Your task to perform on an android device: Go to Google Image 0: 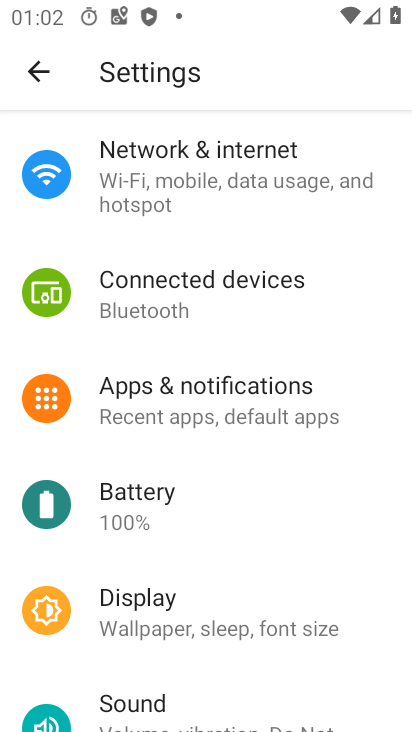
Step 0: press home button
Your task to perform on an android device: Go to Google Image 1: 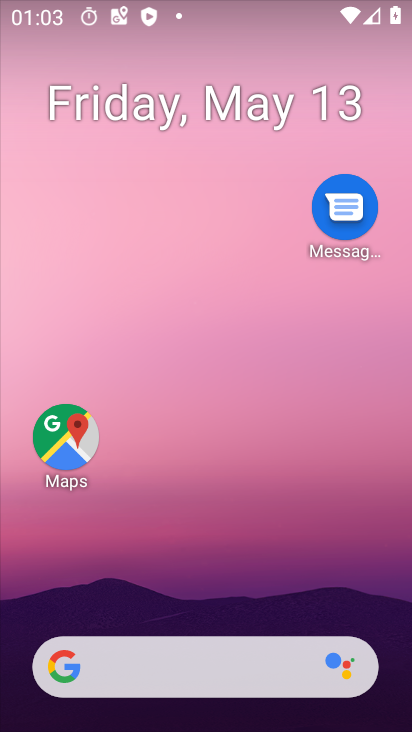
Step 1: drag from (278, 318) to (270, 52)
Your task to perform on an android device: Go to Google Image 2: 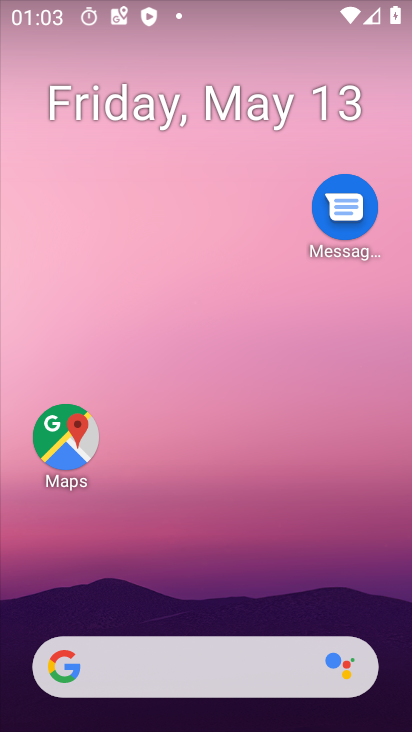
Step 2: drag from (268, 575) to (282, 99)
Your task to perform on an android device: Go to Google Image 3: 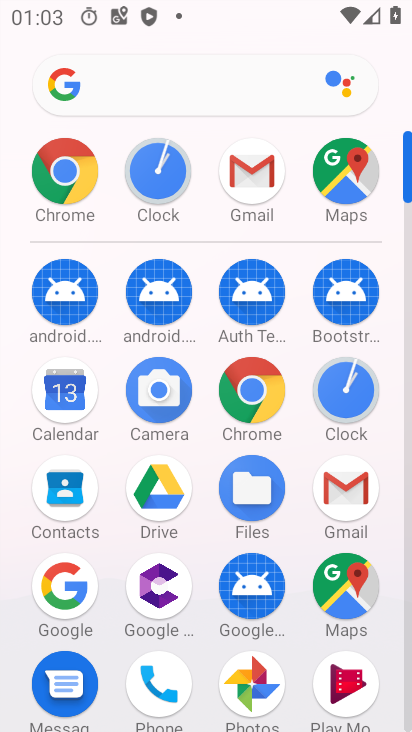
Step 3: click (68, 579)
Your task to perform on an android device: Go to Google Image 4: 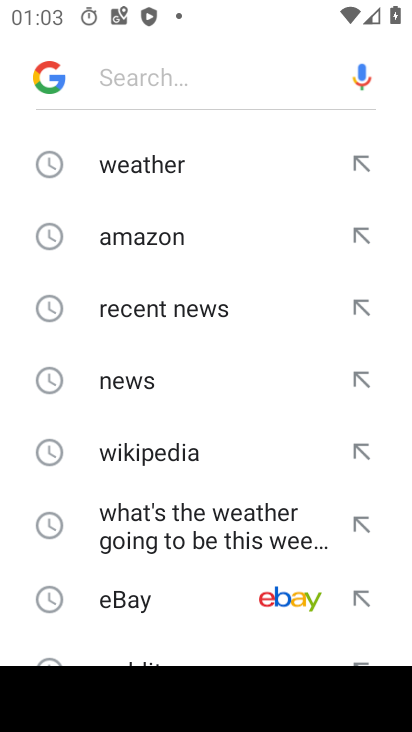
Step 4: press home button
Your task to perform on an android device: Go to Google Image 5: 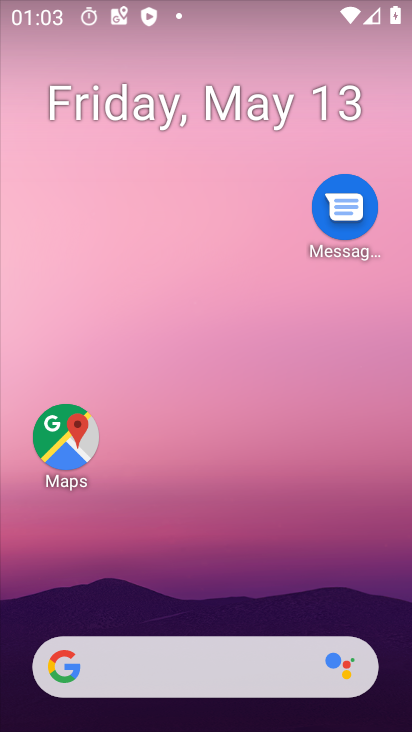
Step 5: drag from (185, 581) to (210, 0)
Your task to perform on an android device: Go to Google Image 6: 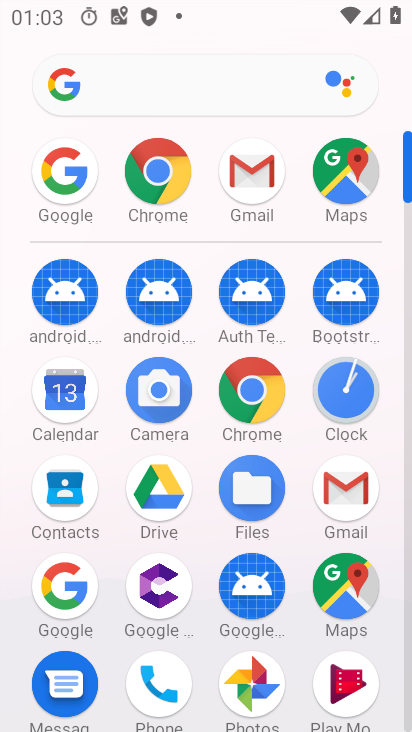
Step 6: click (67, 581)
Your task to perform on an android device: Go to Google Image 7: 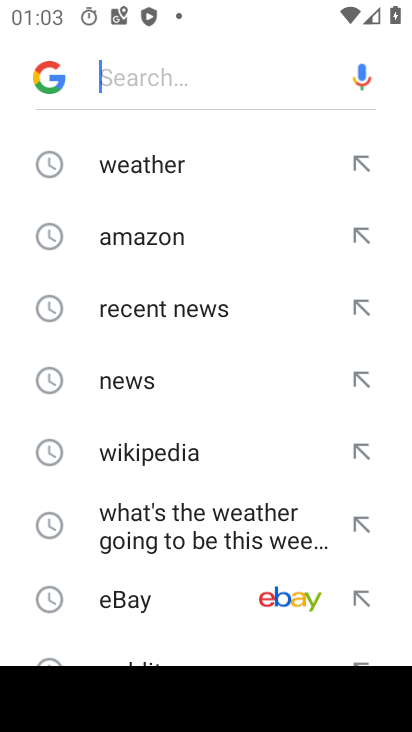
Step 7: click (57, 584)
Your task to perform on an android device: Go to Google Image 8: 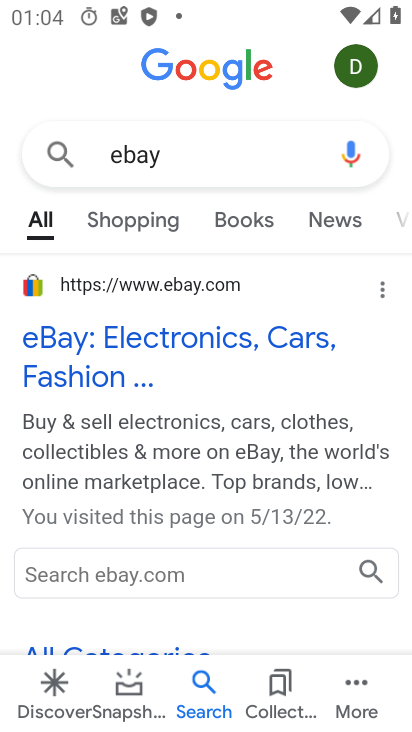
Step 8: task complete